Your task to perform on an android device: toggle sleep mode Image 0: 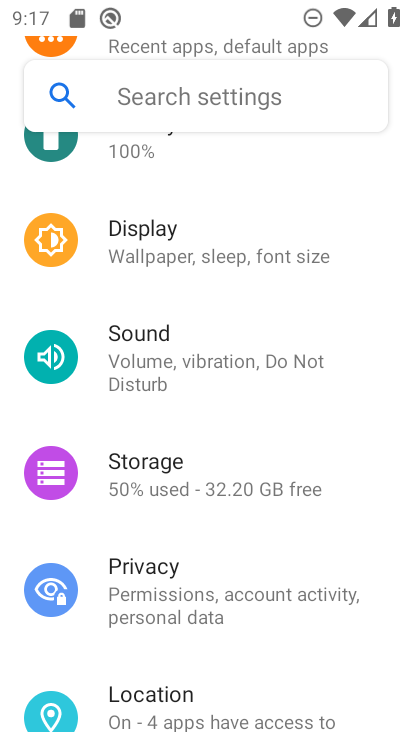
Step 0: click (369, 551)
Your task to perform on an android device: toggle sleep mode Image 1: 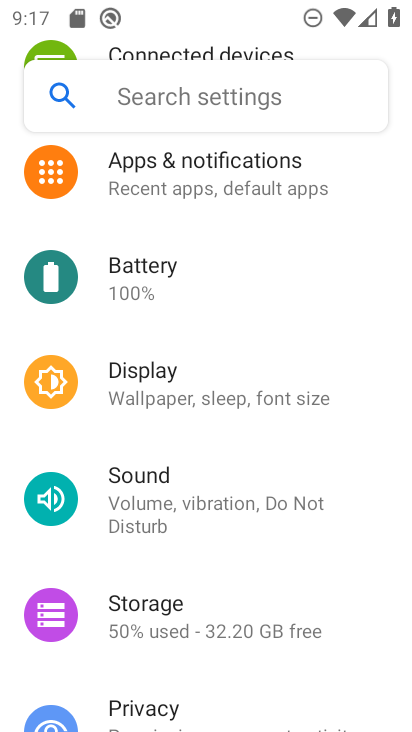
Step 1: click (280, 419)
Your task to perform on an android device: toggle sleep mode Image 2: 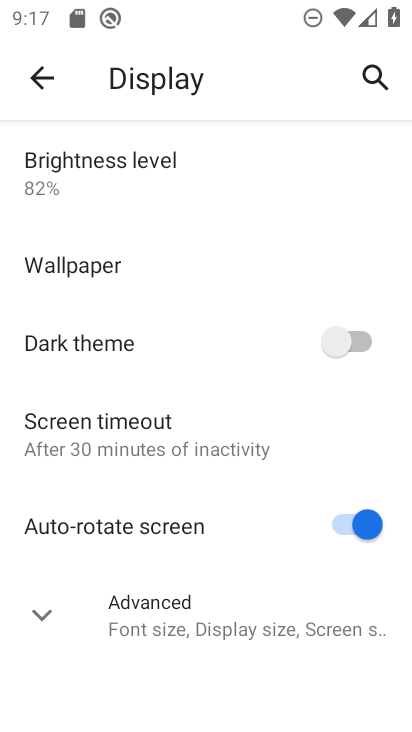
Step 2: task complete